Your task to perform on an android device: Turn on the flashlight Image 0: 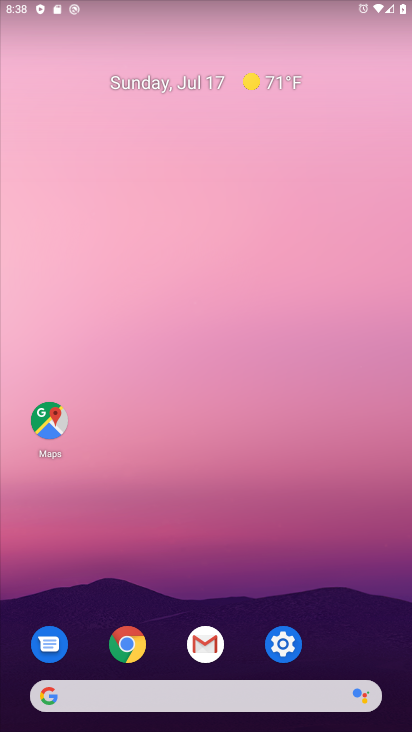
Step 0: click (278, 632)
Your task to perform on an android device: Turn on the flashlight Image 1: 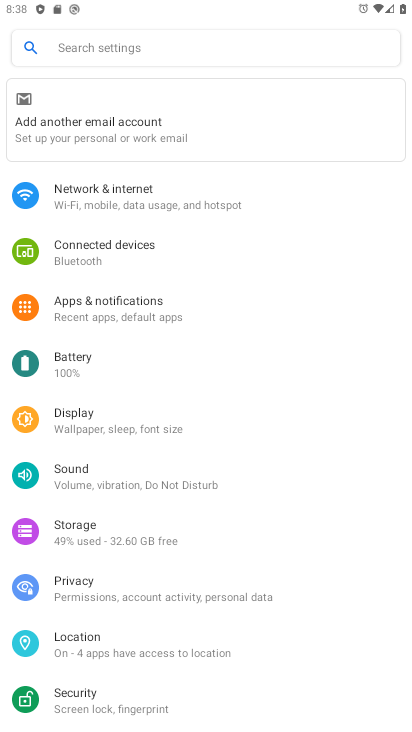
Step 1: click (106, 40)
Your task to perform on an android device: Turn on the flashlight Image 2: 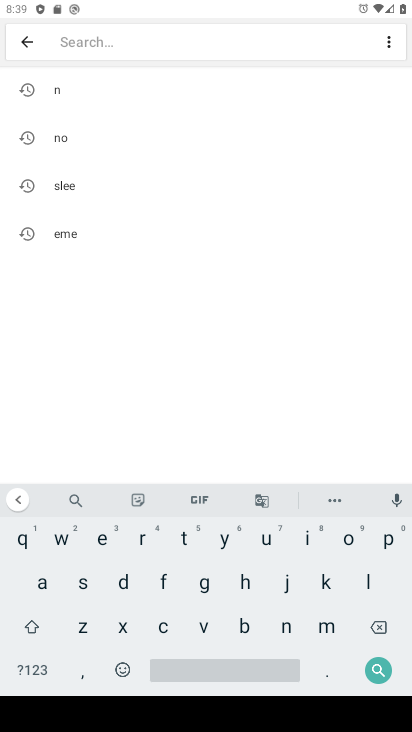
Step 2: click (165, 575)
Your task to perform on an android device: Turn on the flashlight Image 3: 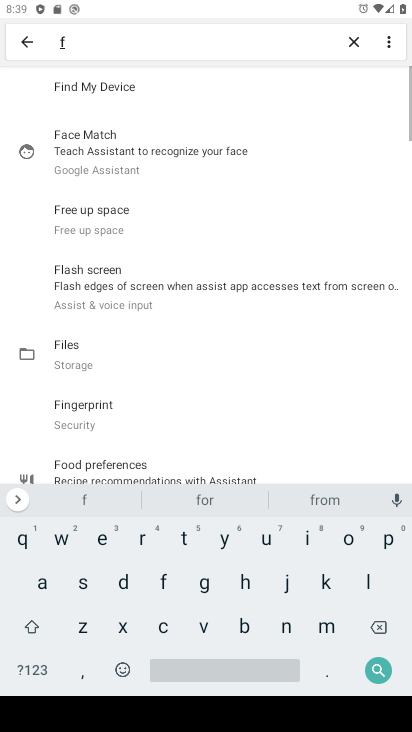
Step 3: click (367, 582)
Your task to perform on an android device: Turn on the flashlight Image 4: 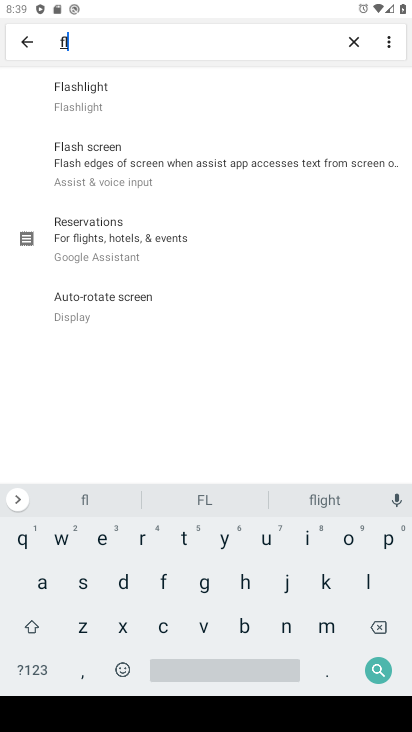
Step 4: click (116, 104)
Your task to perform on an android device: Turn on the flashlight Image 5: 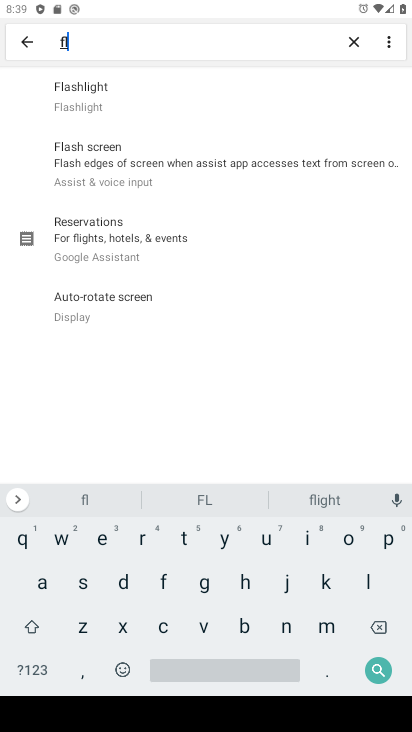
Step 5: click (210, 83)
Your task to perform on an android device: Turn on the flashlight Image 6: 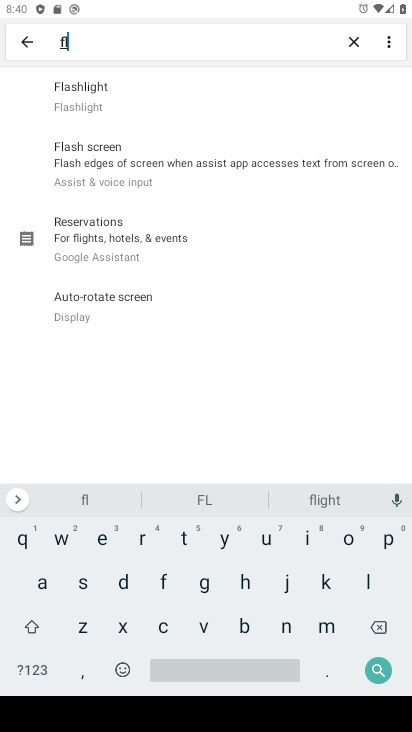
Step 6: task complete